Your task to perform on an android device: Empty the shopping cart on target. Add "panasonic triple a" to the cart on target, then select checkout. Image 0: 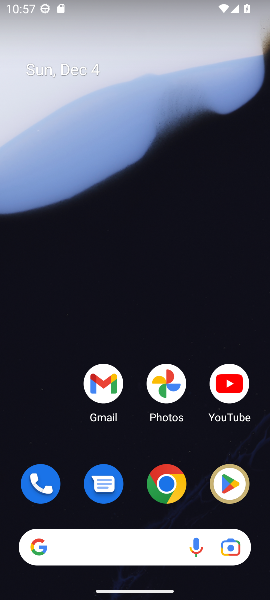
Step 0: click (173, 482)
Your task to perform on an android device: Empty the shopping cart on target. Add "panasonic triple a" to the cart on target, then select checkout. Image 1: 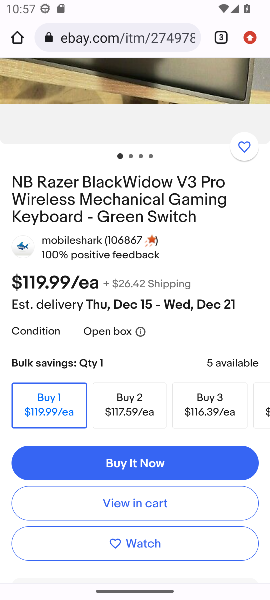
Step 1: click (134, 37)
Your task to perform on an android device: Empty the shopping cart on target. Add "panasonic triple a" to the cart on target, then select checkout. Image 2: 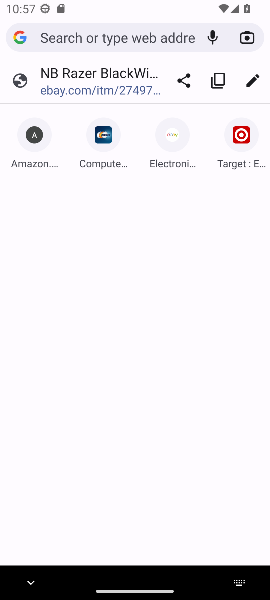
Step 2: click (239, 155)
Your task to perform on an android device: Empty the shopping cart on target. Add "panasonic triple a" to the cart on target, then select checkout. Image 3: 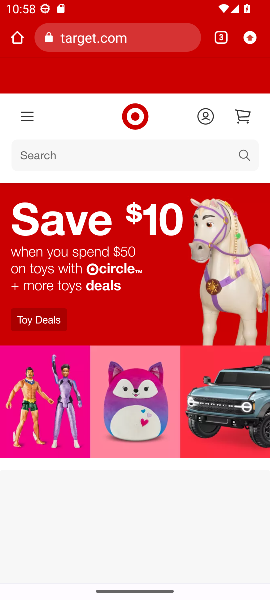
Step 3: click (243, 117)
Your task to perform on an android device: Empty the shopping cart on target. Add "panasonic triple a" to the cart on target, then select checkout. Image 4: 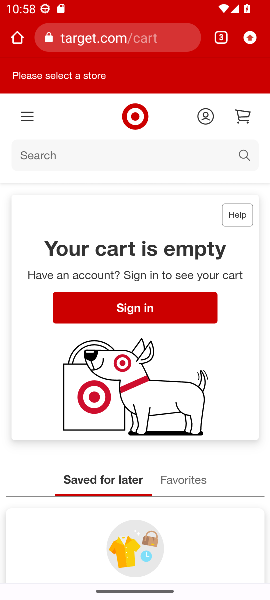
Step 4: click (39, 157)
Your task to perform on an android device: Empty the shopping cart on target. Add "panasonic triple a" to the cart on target, then select checkout. Image 5: 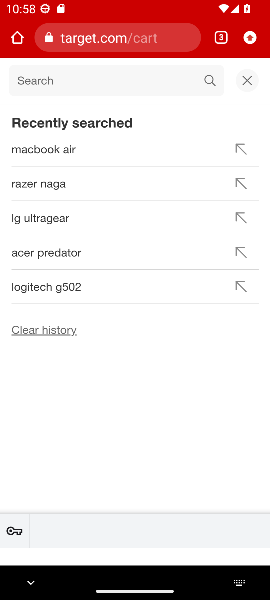
Step 5: type "panasonic triple a"
Your task to perform on an android device: Empty the shopping cart on target. Add "panasonic triple a" to the cart on target, then select checkout. Image 6: 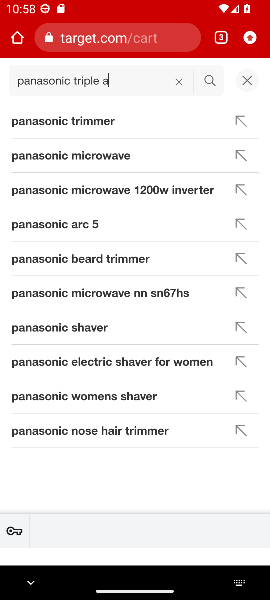
Step 6: click (210, 81)
Your task to perform on an android device: Empty the shopping cart on target. Add "panasonic triple a" to the cart on target, then select checkout. Image 7: 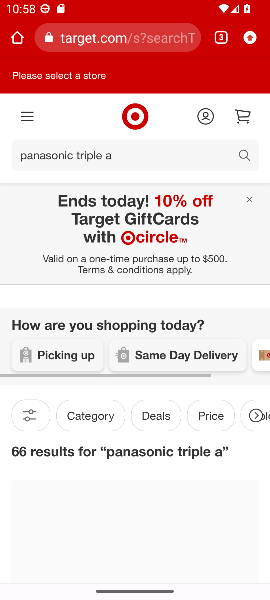
Step 7: task complete